Your task to perform on an android device: Toggle the flashlight Image 0: 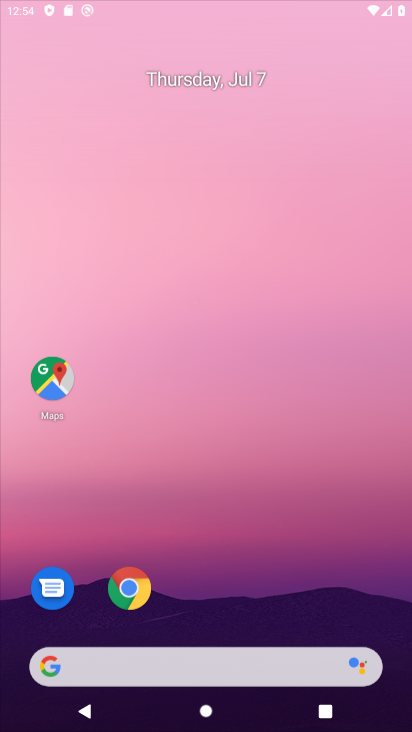
Step 0: drag from (194, 554) to (246, 141)
Your task to perform on an android device: Toggle the flashlight Image 1: 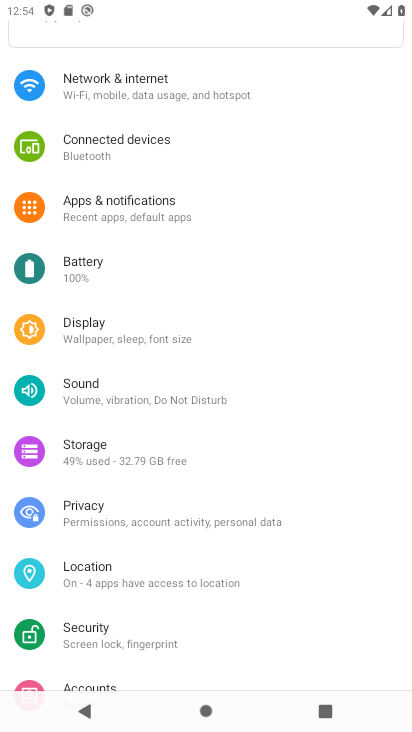
Step 1: task complete